Your task to perform on an android device: What's on my calendar today? Image 0: 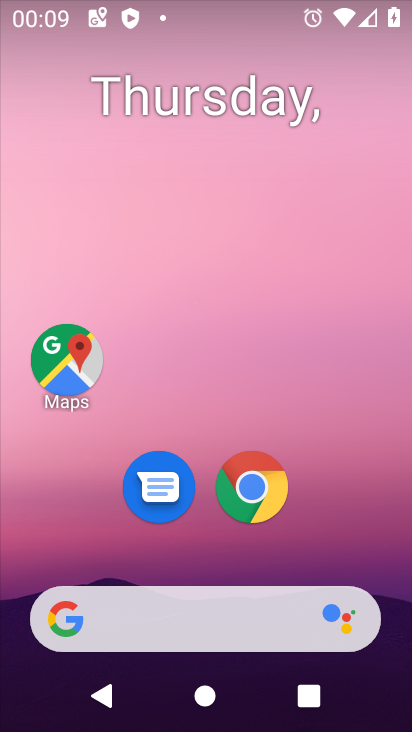
Step 0: drag from (378, 578) to (391, 3)
Your task to perform on an android device: What's on my calendar today? Image 1: 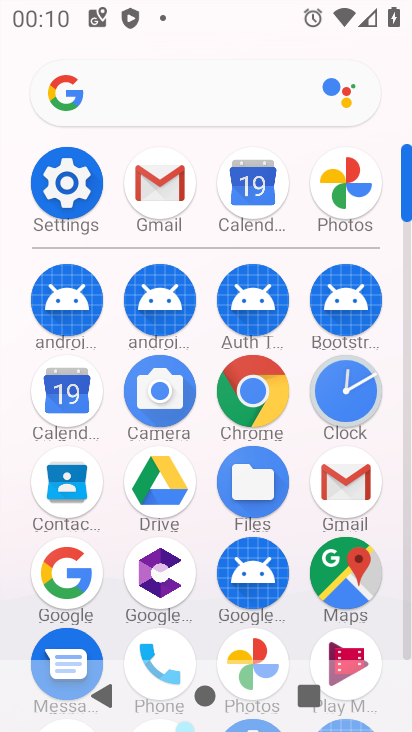
Step 1: click (245, 195)
Your task to perform on an android device: What's on my calendar today? Image 2: 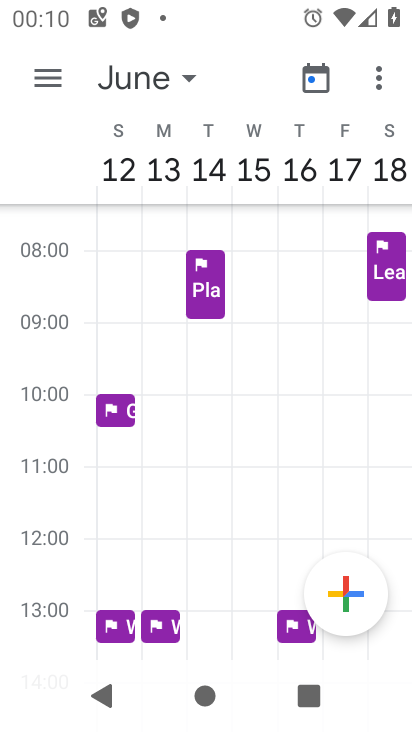
Step 2: click (308, 80)
Your task to perform on an android device: What's on my calendar today? Image 3: 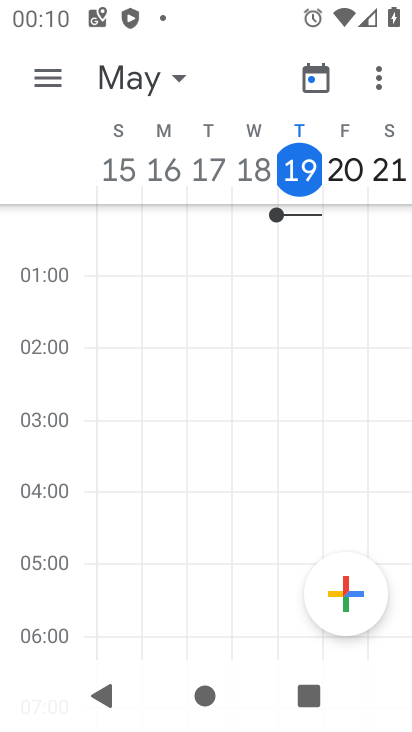
Step 3: click (33, 74)
Your task to perform on an android device: What's on my calendar today? Image 4: 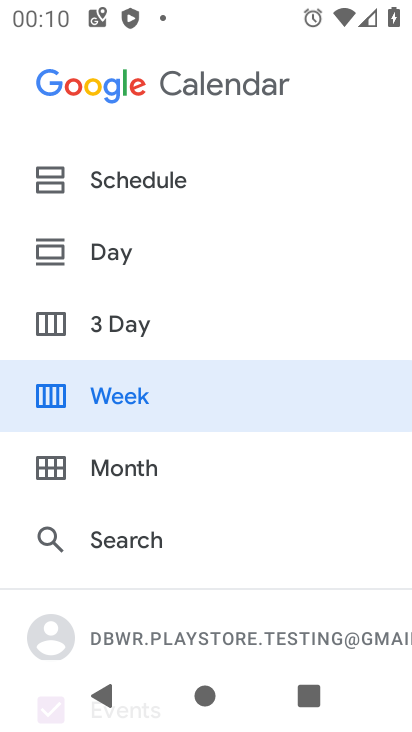
Step 4: click (122, 185)
Your task to perform on an android device: What's on my calendar today? Image 5: 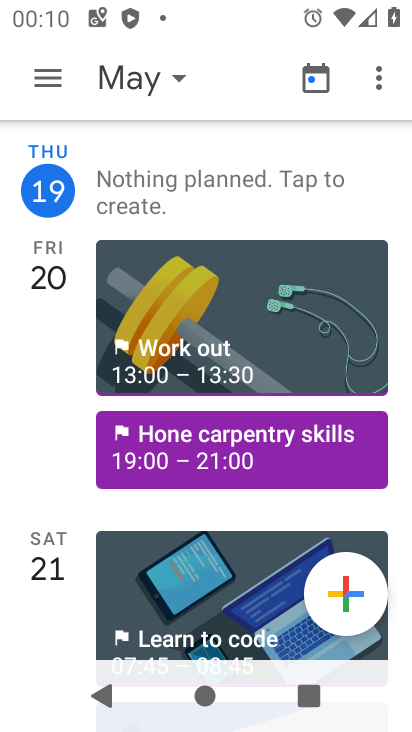
Step 5: click (122, 184)
Your task to perform on an android device: What's on my calendar today? Image 6: 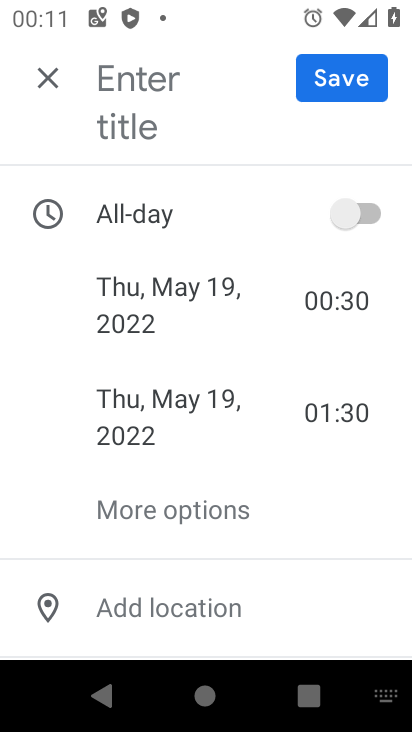
Step 6: task complete